Your task to perform on an android device: Open eBay Image 0: 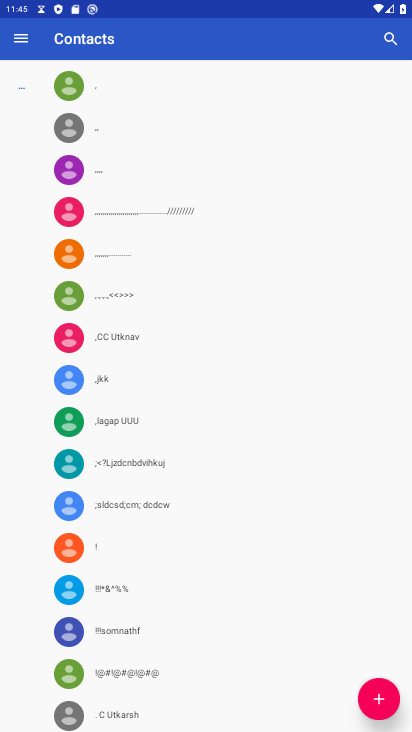
Step 0: press home button
Your task to perform on an android device: Open eBay Image 1: 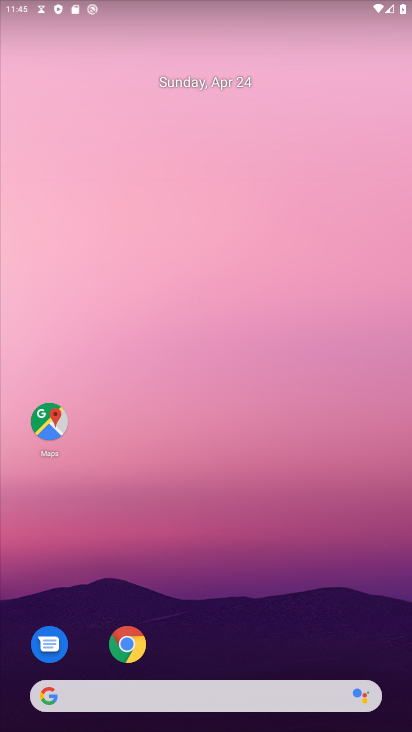
Step 1: click (131, 648)
Your task to perform on an android device: Open eBay Image 2: 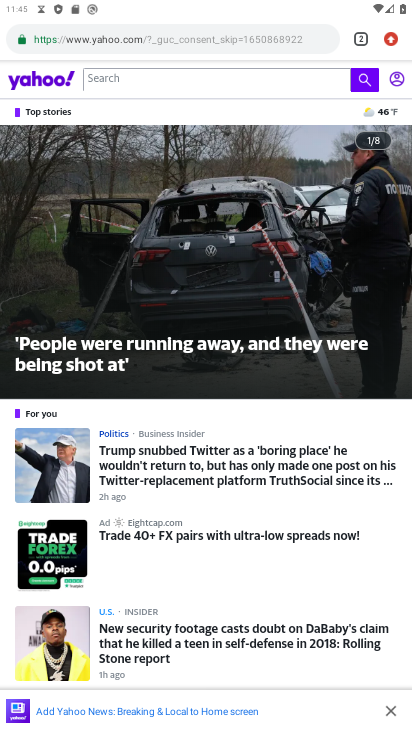
Step 2: click (90, 42)
Your task to perform on an android device: Open eBay Image 3: 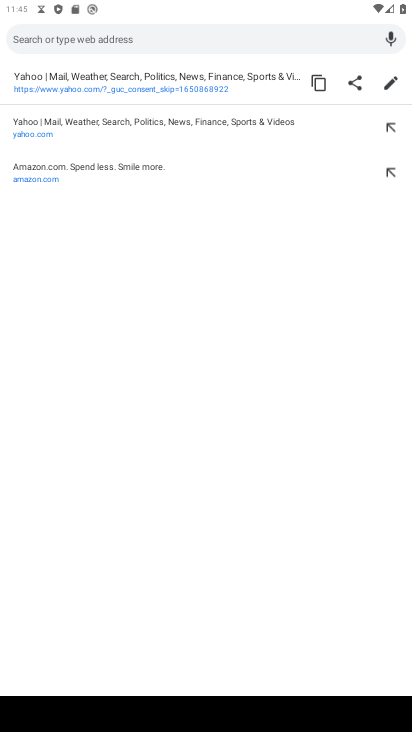
Step 3: type "ebay"
Your task to perform on an android device: Open eBay Image 4: 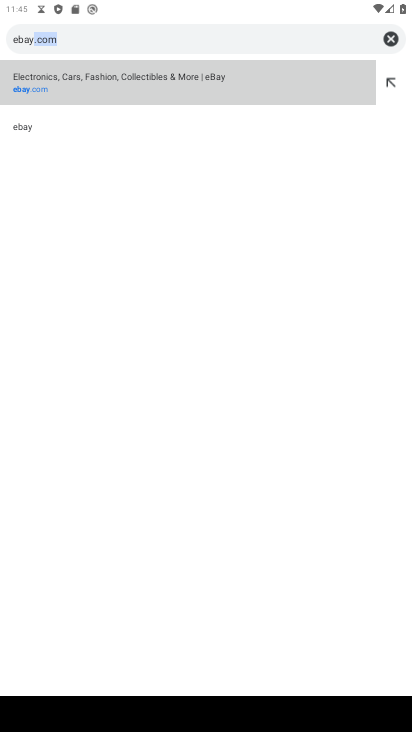
Step 4: click (39, 97)
Your task to perform on an android device: Open eBay Image 5: 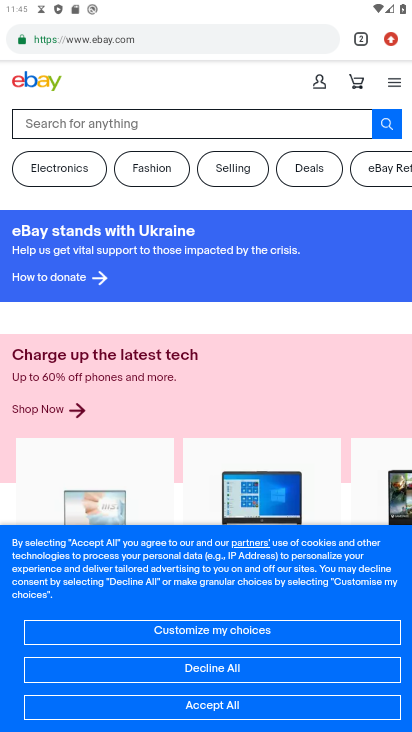
Step 5: task complete